Your task to perform on an android device: manage bookmarks in the chrome app Image 0: 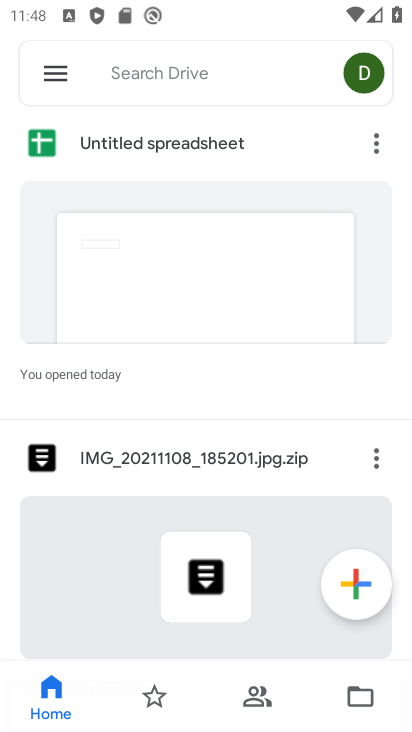
Step 0: press home button
Your task to perform on an android device: manage bookmarks in the chrome app Image 1: 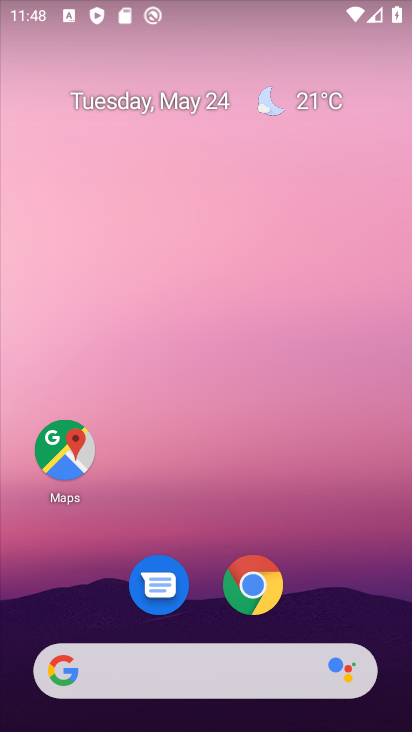
Step 1: click (253, 585)
Your task to perform on an android device: manage bookmarks in the chrome app Image 2: 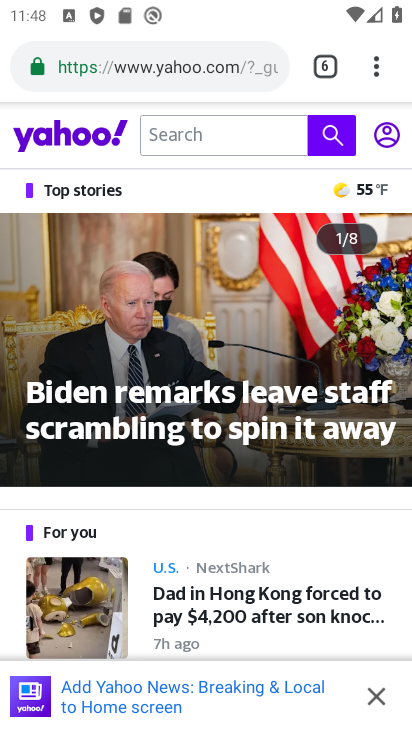
Step 2: click (373, 70)
Your task to perform on an android device: manage bookmarks in the chrome app Image 3: 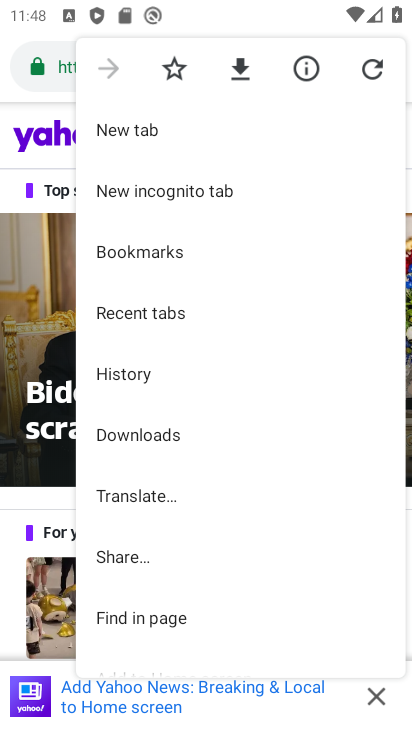
Step 3: click (225, 246)
Your task to perform on an android device: manage bookmarks in the chrome app Image 4: 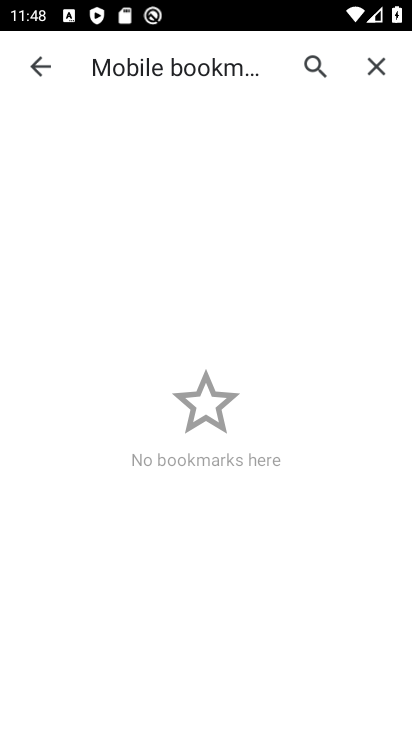
Step 4: task complete